Your task to perform on an android device: uninstall "AliExpress" Image 0: 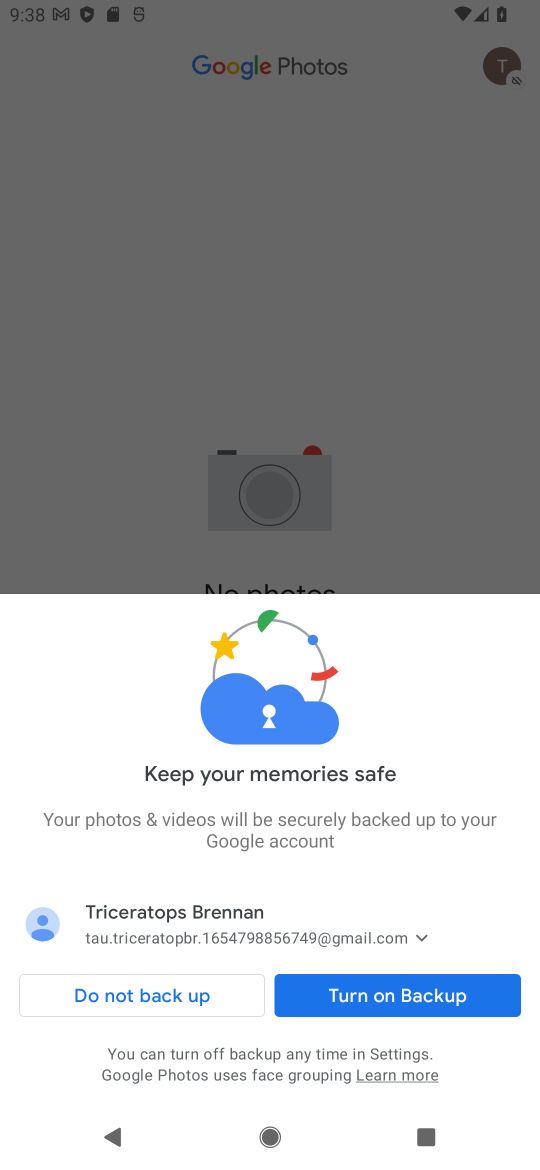
Step 0: press home button
Your task to perform on an android device: uninstall "AliExpress" Image 1: 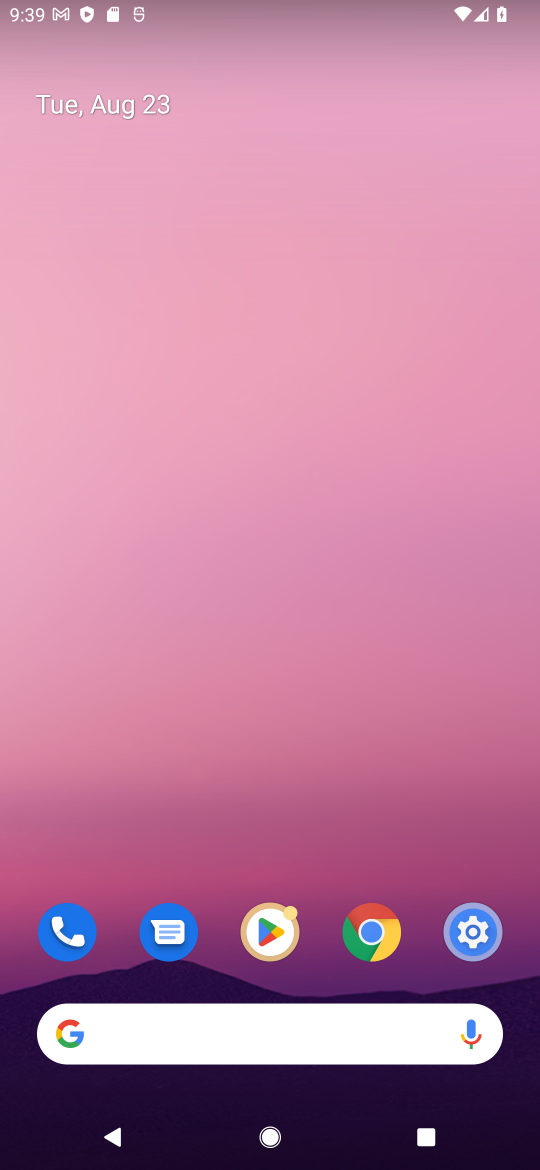
Step 1: click (275, 946)
Your task to perform on an android device: uninstall "AliExpress" Image 2: 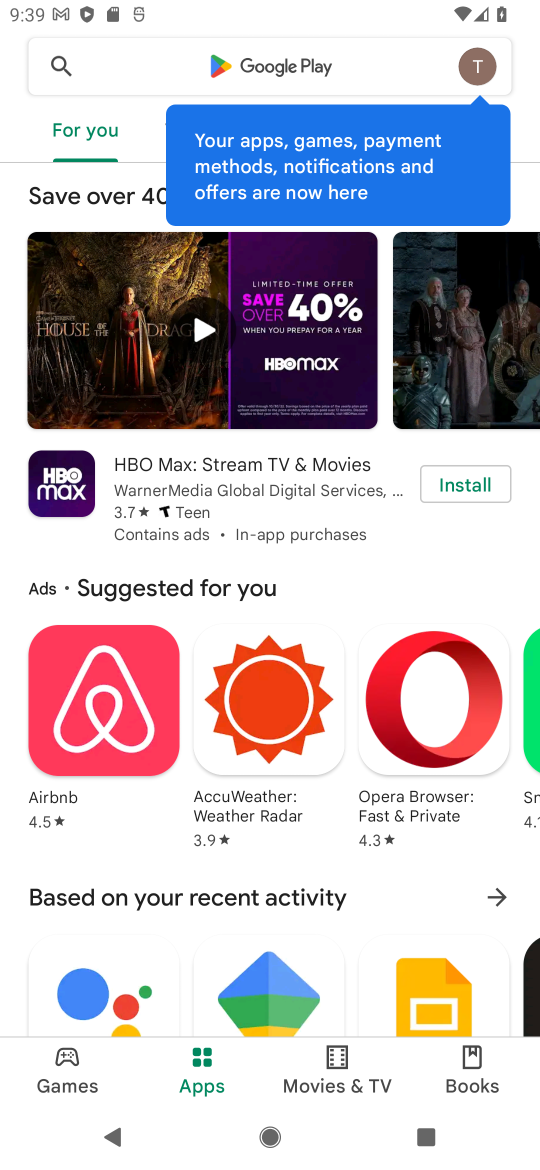
Step 2: click (281, 68)
Your task to perform on an android device: uninstall "AliExpress" Image 3: 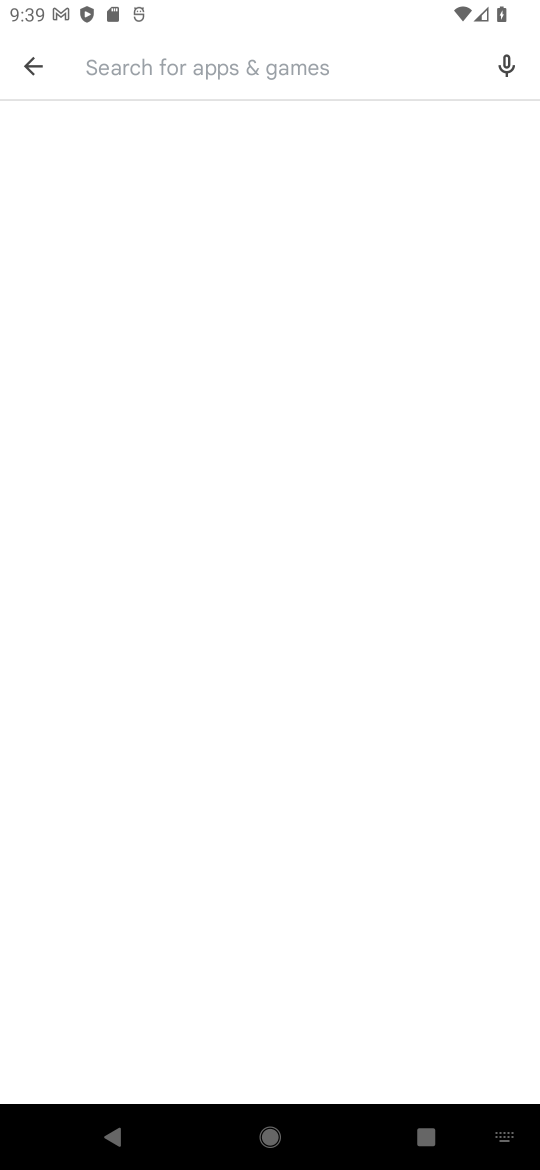
Step 3: type "aliexpress"
Your task to perform on an android device: uninstall "AliExpress" Image 4: 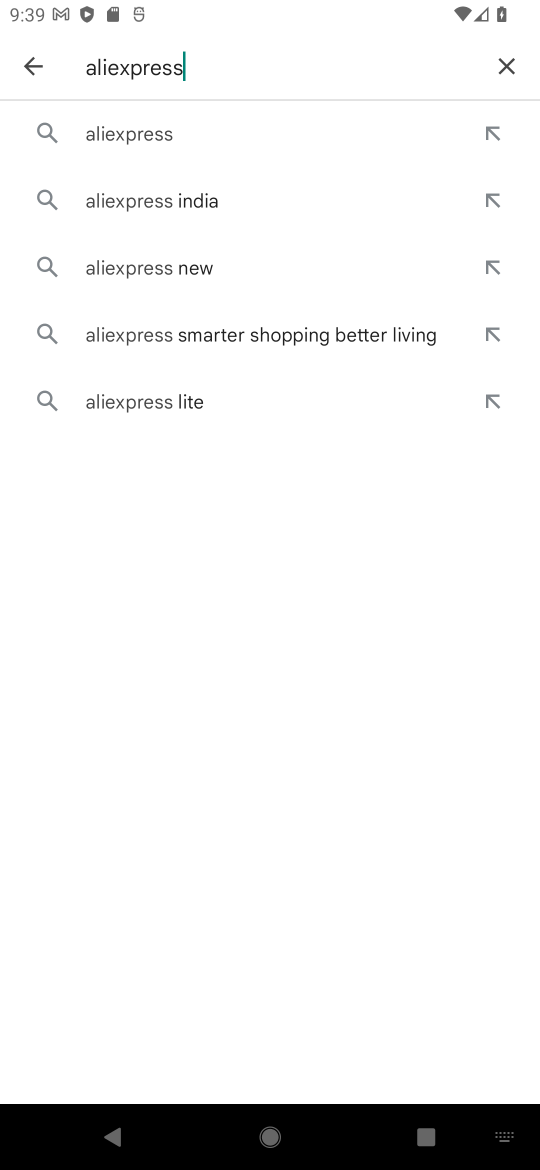
Step 4: click (174, 124)
Your task to perform on an android device: uninstall "AliExpress" Image 5: 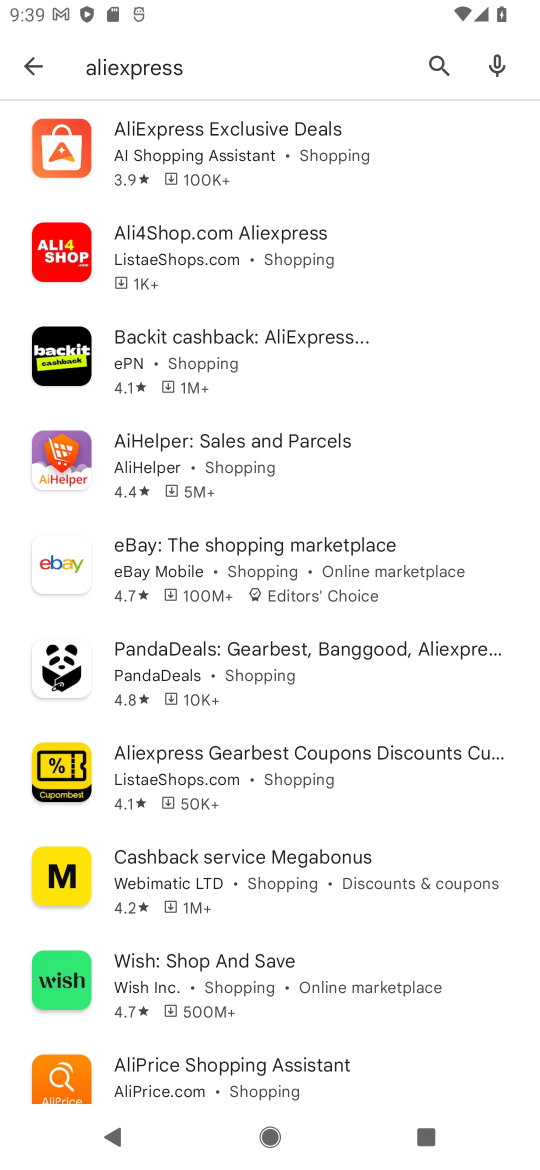
Step 5: click (258, 183)
Your task to perform on an android device: uninstall "AliExpress" Image 6: 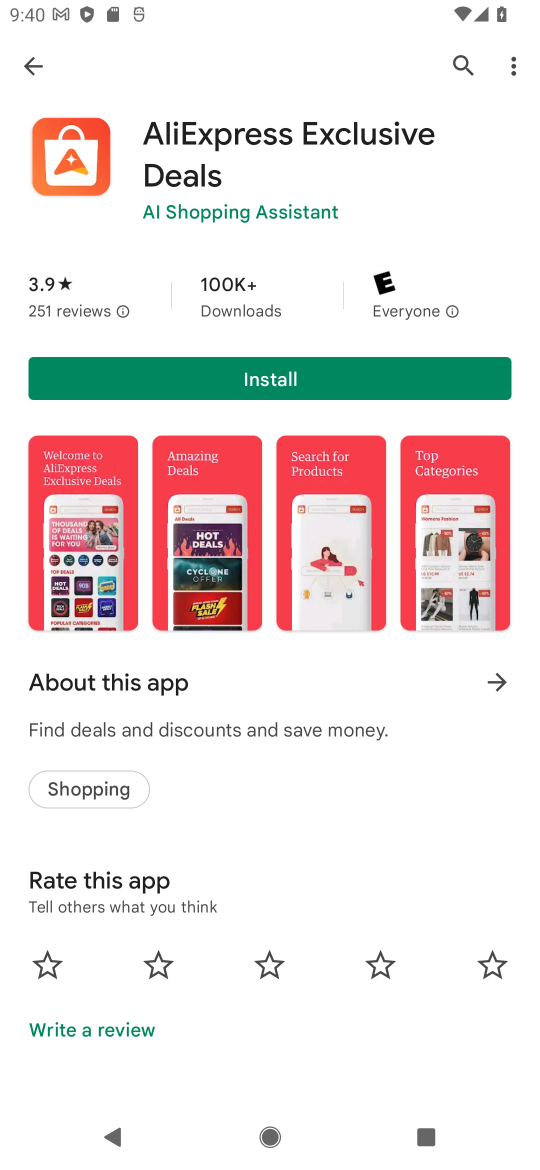
Step 6: task complete